Your task to perform on an android device: set default search engine in the chrome app Image 0: 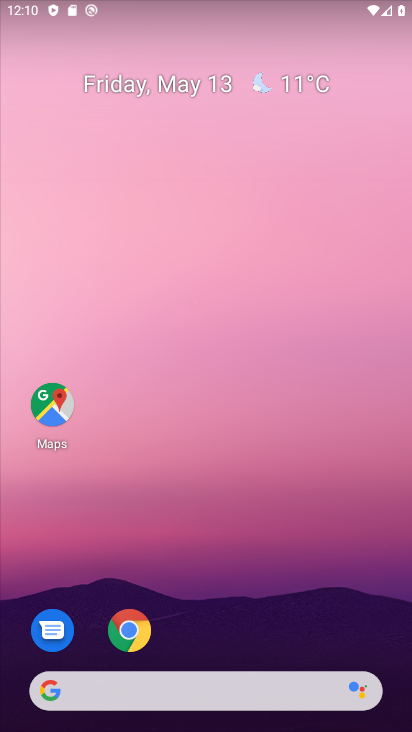
Step 0: press home button
Your task to perform on an android device: set default search engine in the chrome app Image 1: 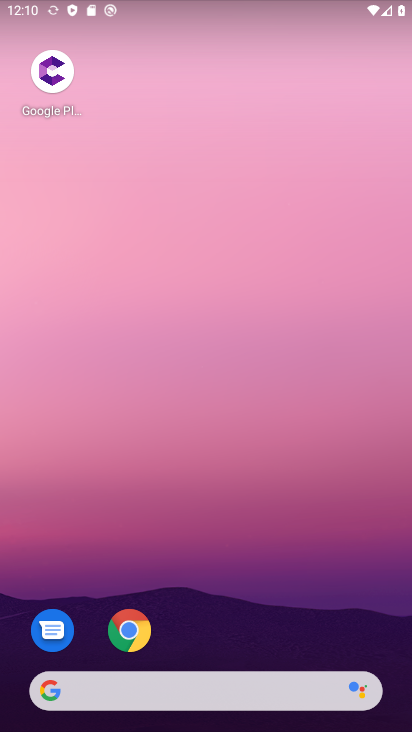
Step 1: click (121, 632)
Your task to perform on an android device: set default search engine in the chrome app Image 2: 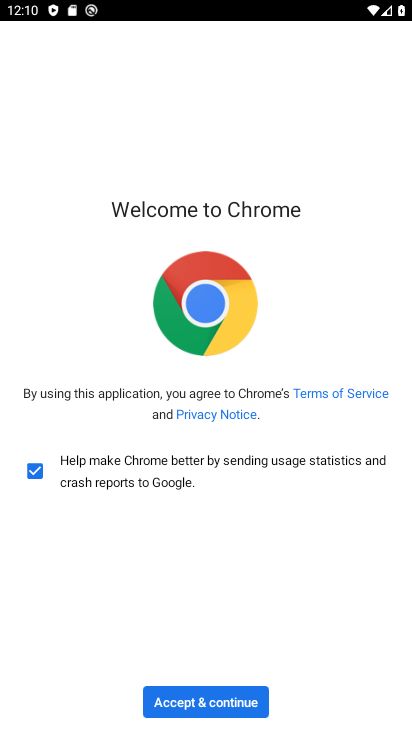
Step 2: click (219, 691)
Your task to perform on an android device: set default search engine in the chrome app Image 3: 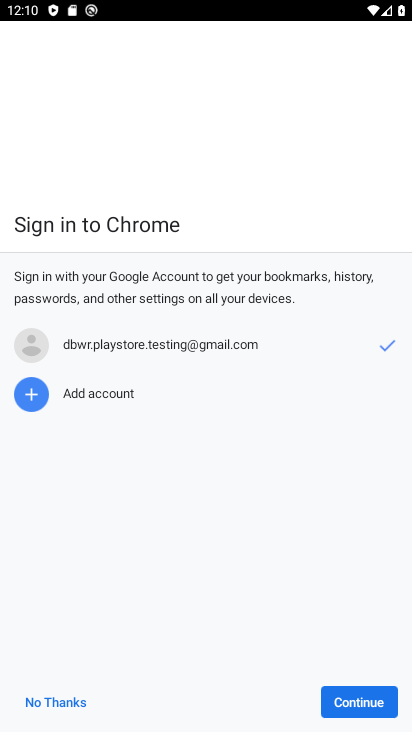
Step 3: click (39, 693)
Your task to perform on an android device: set default search engine in the chrome app Image 4: 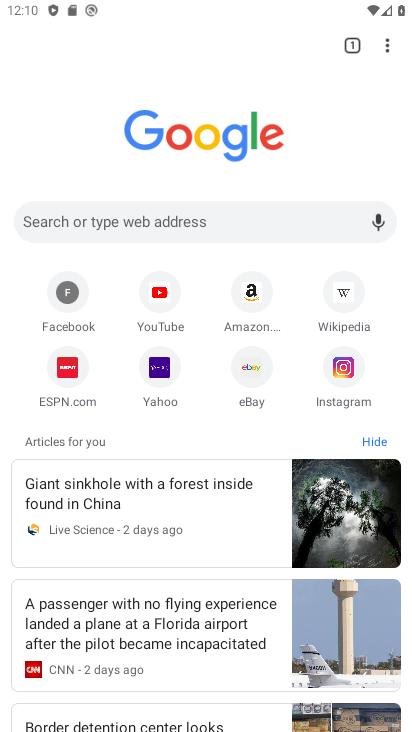
Step 4: click (384, 54)
Your task to perform on an android device: set default search engine in the chrome app Image 5: 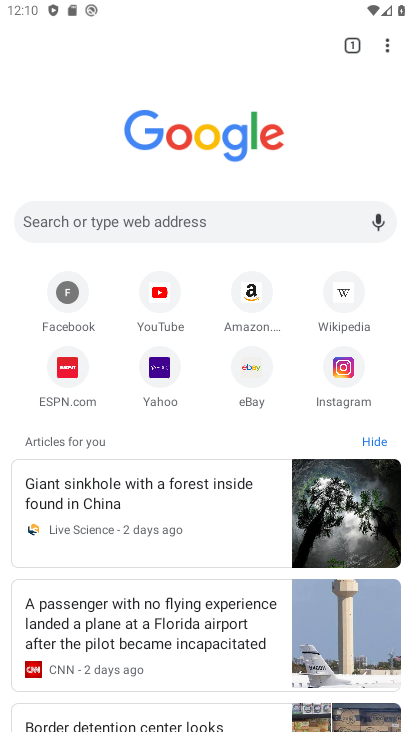
Step 5: click (387, 48)
Your task to perform on an android device: set default search engine in the chrome app Image 6: 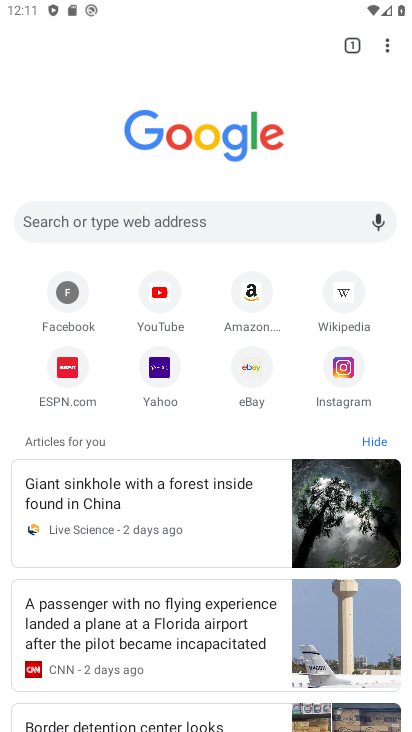
Step 6: click (381, 42)
Your task to perform on an android device: set default search engine in the chrome app Image 7: 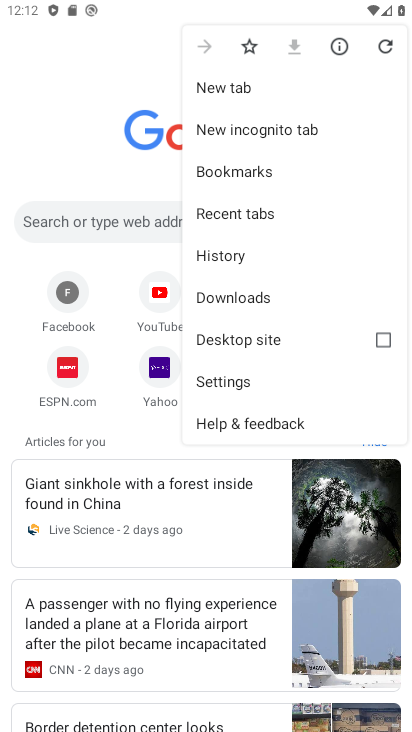
Step 7: click (257, 386)
Your task to perform on an android device: set default search engine in the chrome app Image 8: 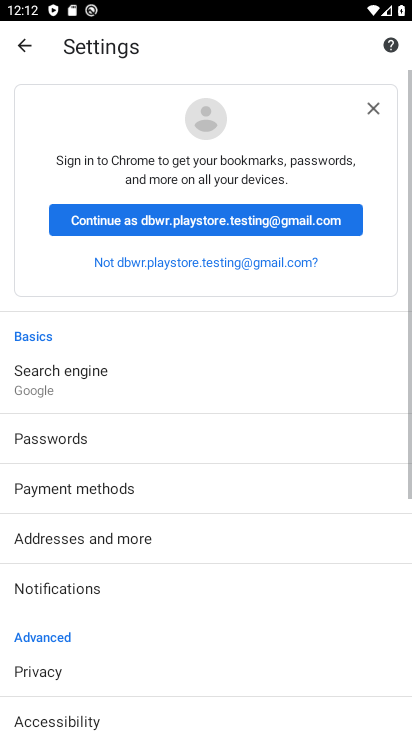
Step 8: click (141, 377)
Your task to perform on an android device: set default search engine in the chrome app Image 9: 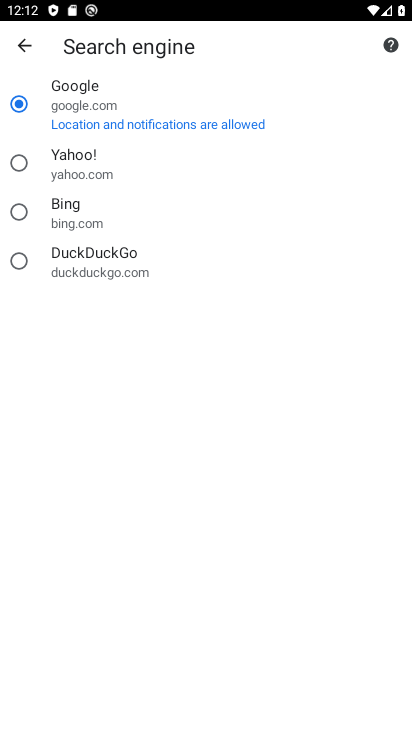
Step 9: click (77, 158)
Your task to perform on an android device: set default search engine in the chrome app Image 10: 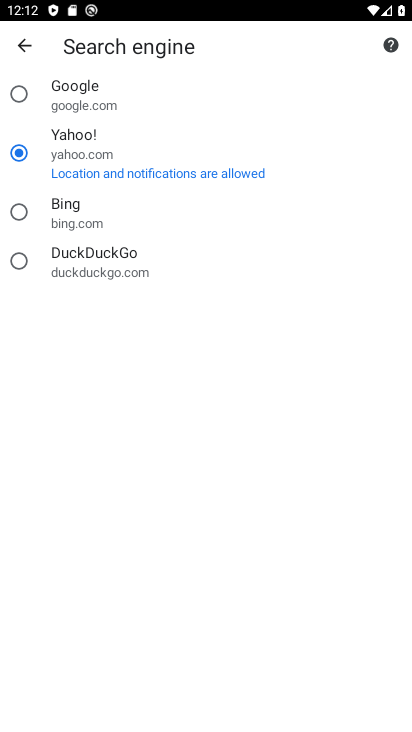
Step 10: task complete